Your task to perform on an android device: Open Google Chrome Image 0: 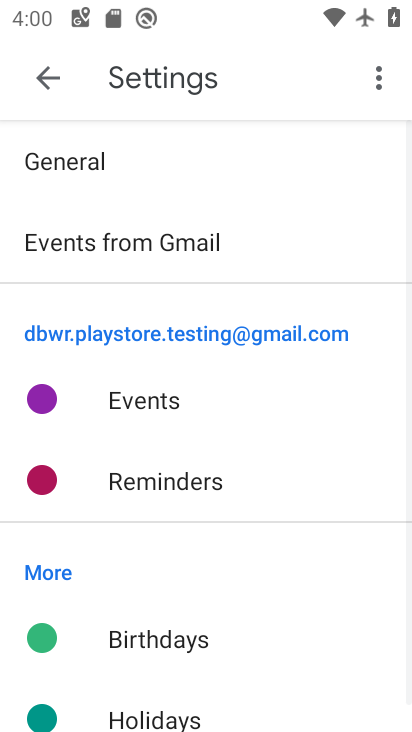
Step 0: press back button
Your task to perform on an android device: Open Google Chrome Image 1: 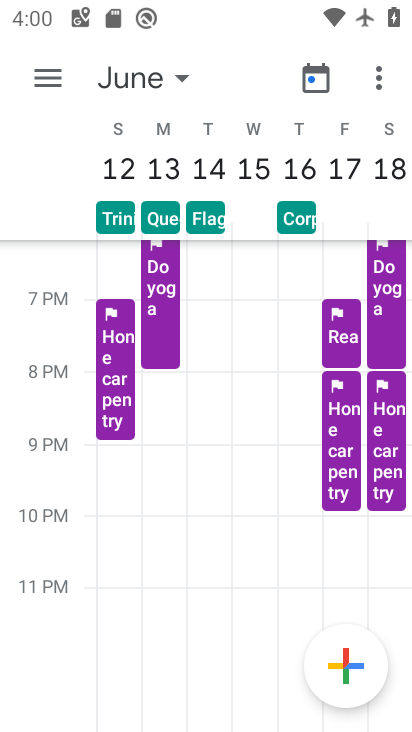
Step 1: press home button
Your task to perform on an android device: Open Google Chrome Image 2: 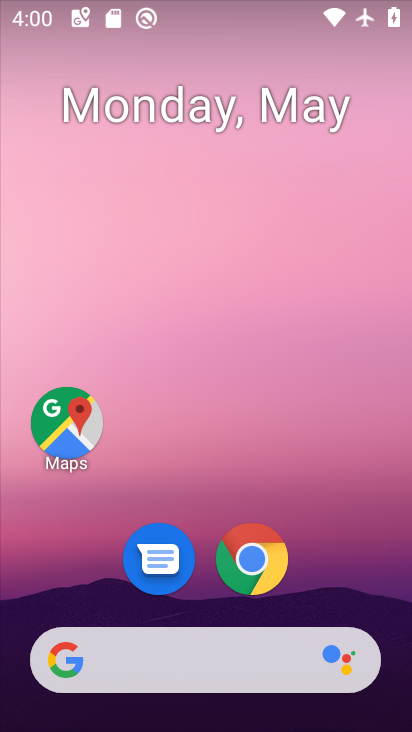
Step 2: click (262, 562)
Your task to perform on an android device: Open Google Chrome Image 3: 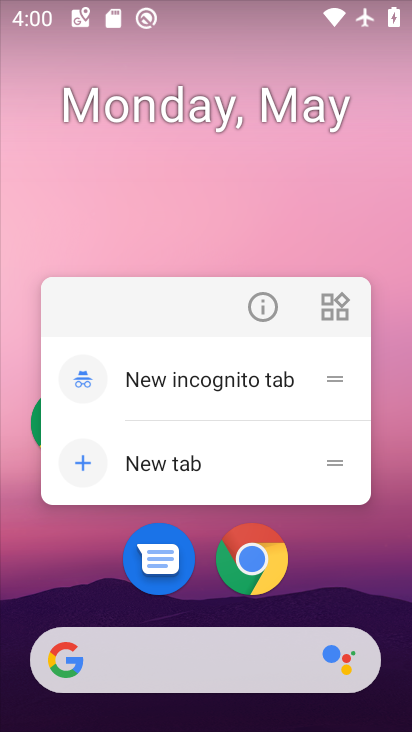
Step 3: click (240, 571)
Your task to perform on an android device: Open Google Chrome Image 4: 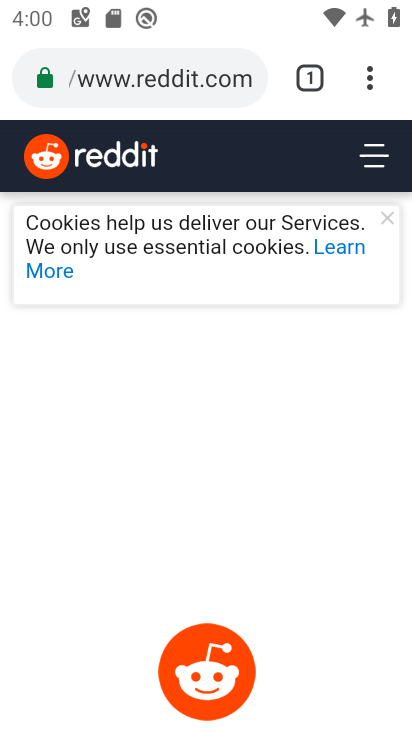
Step 4: task complete